Your task to perform on an android device: turn off wifi Image 0: 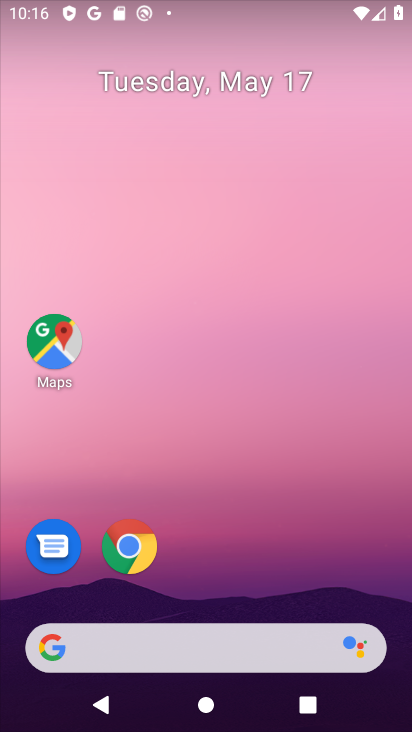
Step 0: drag from (222, 568) to (293, 131)
Your task to perform on an android device: turn off wifi Image 1: 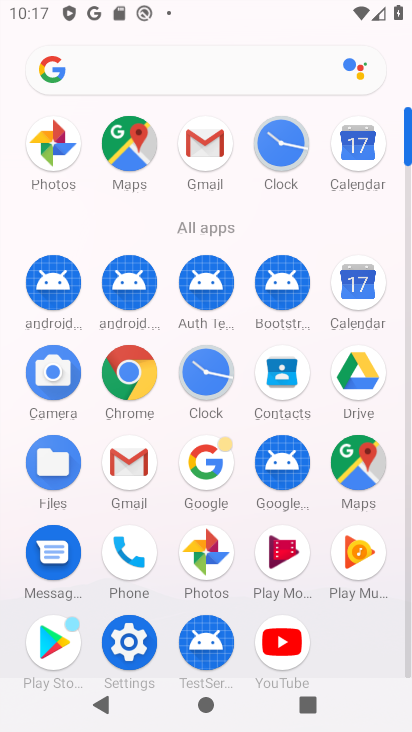
Step 1: click (129, 646)
Your task to perform on an android device: turn off wifi Image 2: 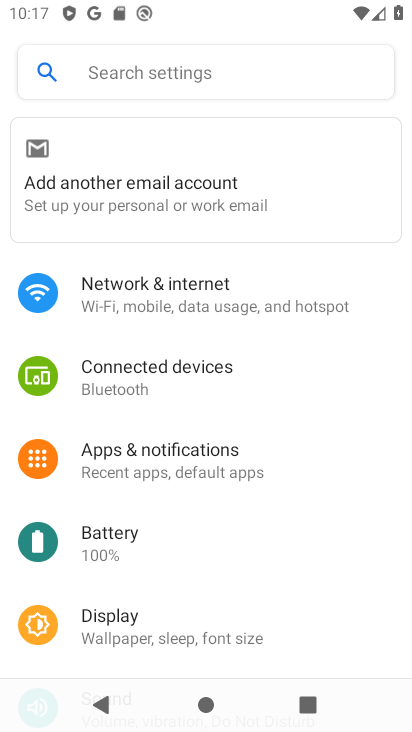
Step 2: click (171, 317)
Your task to perform on an android device: turn off wifi Image 3: 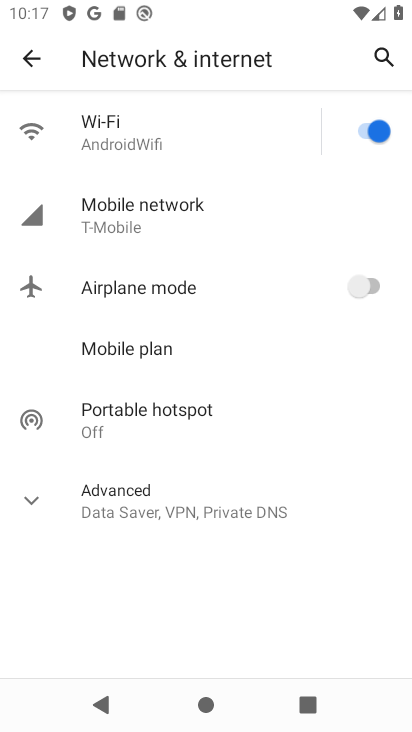
Step 3: click (348, 126)
Your task to perform on an android device: turn off wifi Image 4: 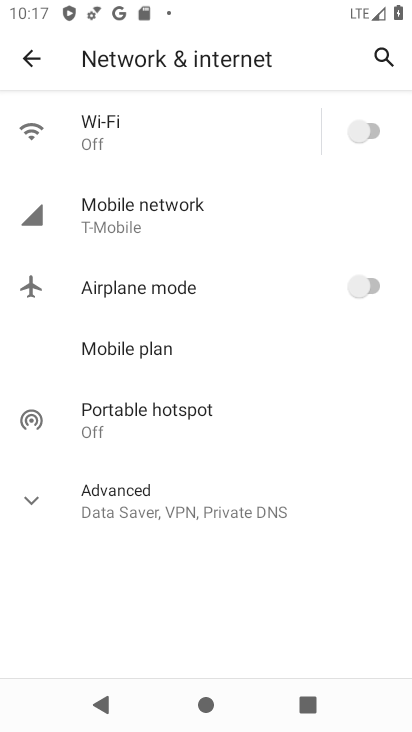
Step 4: task complete